Your task to perform on an android device: What is the recent news? Image 0: 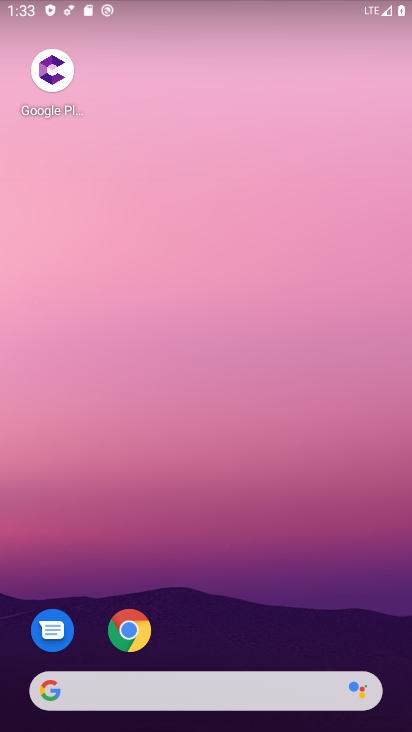
Step 0: click (129, 614)
Your task to perform on an android device: What is the recent news? Image 1: 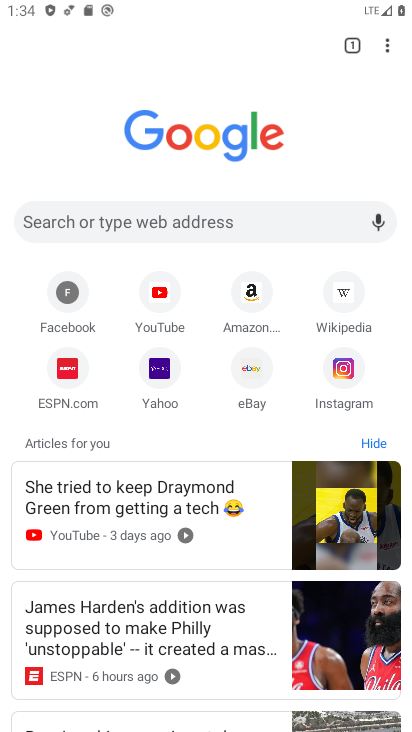
Step 1: click (228, 205)
Your task to perform on an android device: What is the recent news? Image 2: 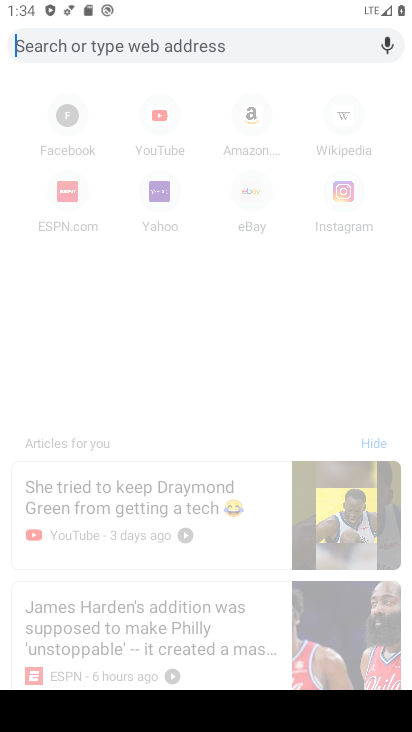
Step 2: type "news"
Your task to perform on an android device: What is the recent news? Image 3: 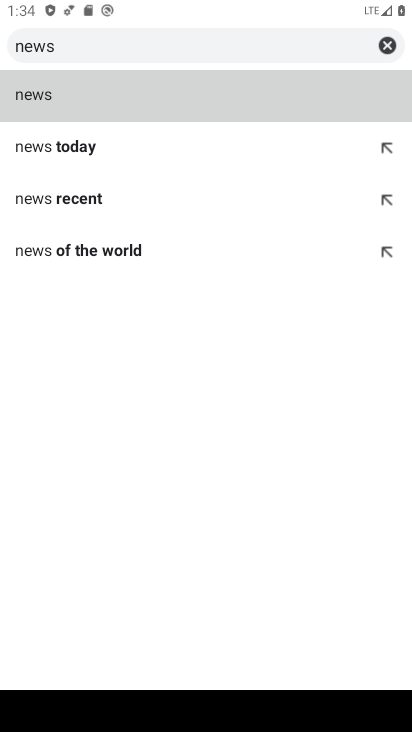
Step 3: click (40, 89)
Your task to perform on an android device: What is the recent news? Image 4: 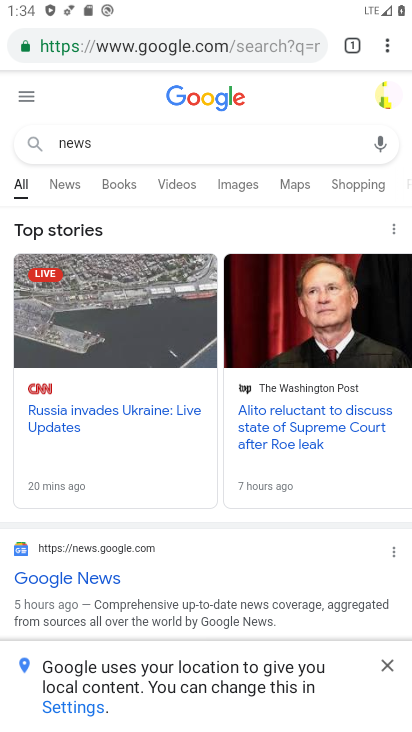
Step 4: click (68, 184)
Your task to perform on an android device: What is the recent news? Image 5: 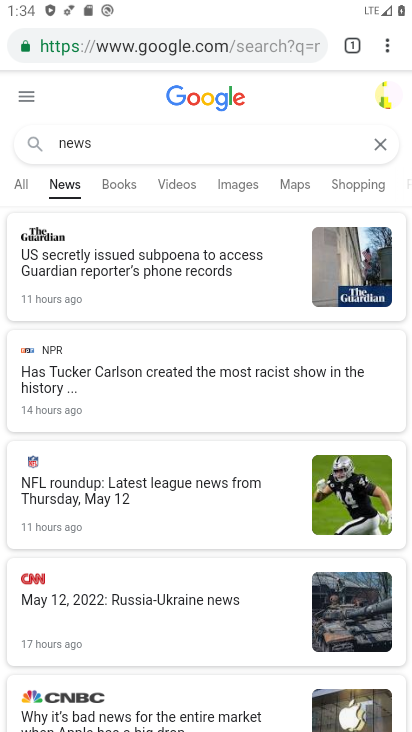
Step 5: task complete